Your task to perform on an android device: change notification settings in the gmail app Image 0: 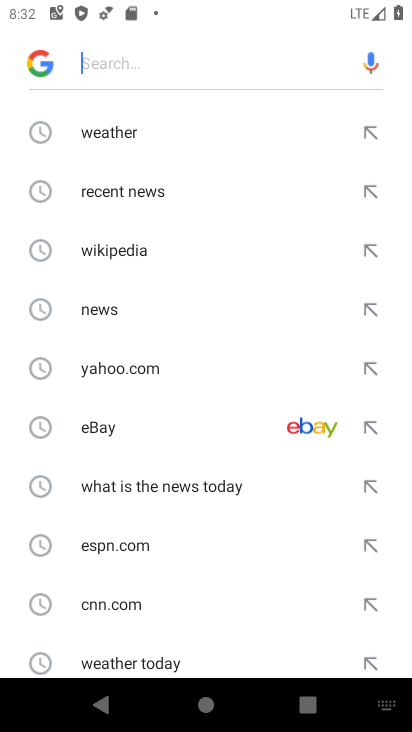
Step 0: press home button
Your task to perform on an android device: change notification settings in the gmail app Image 1: 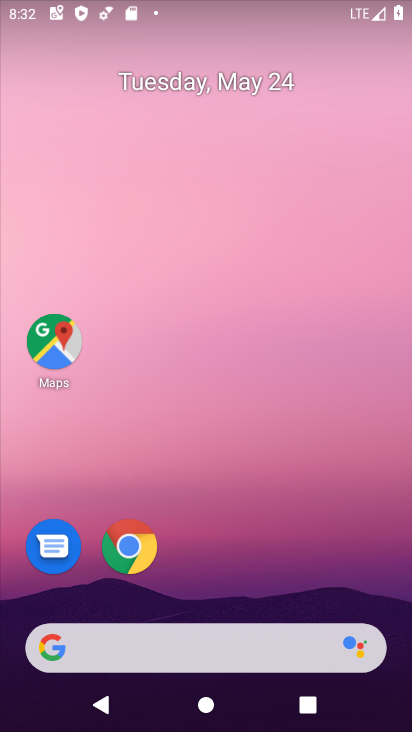
Step 1: drag from (288, 547) to (242, 33)
Your task to perform on an android device: change notification settings in the gmail app Image 2: 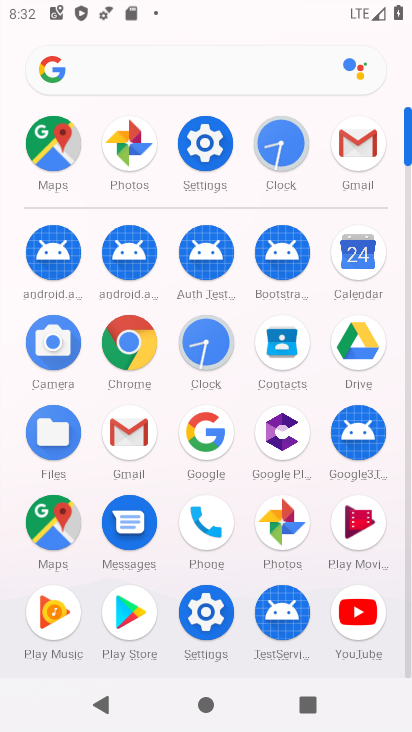
Step 2: click (346, 140)
Your task to perform on an android device: change notification settings in the gmail app Image 3: 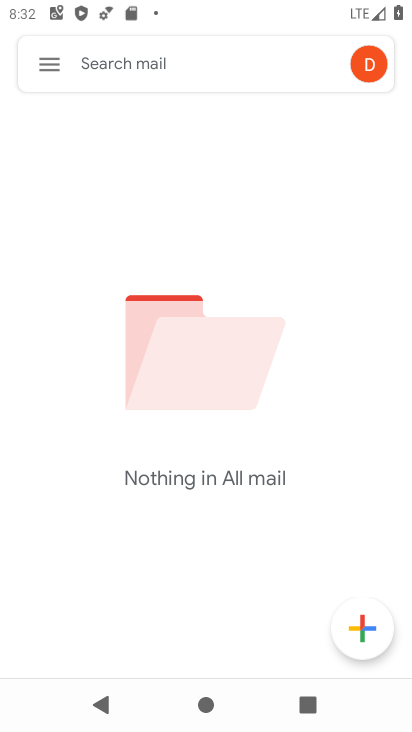
Step 3: click (43, 56)
Your task to perform on an android device: change notification settings in the gmail app Image 4: 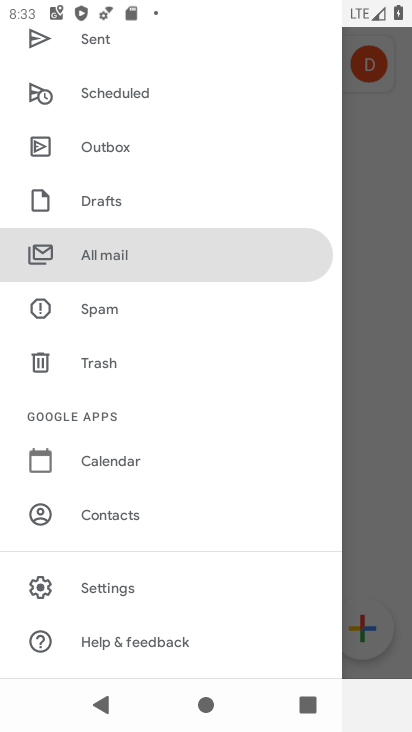
Step 4: click (154, 586)
Your task to perform on an android device: change notification settings in the gmail app Image 5: 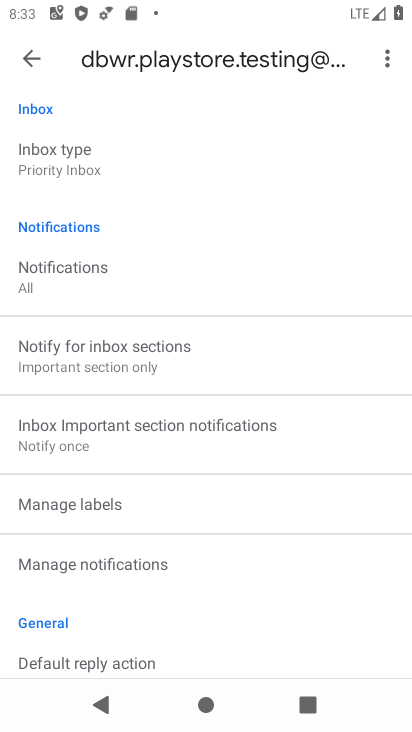
Step 5: click (185, 555)
Your task to perform on an android device: change notification settings in the gmail app Image 6: 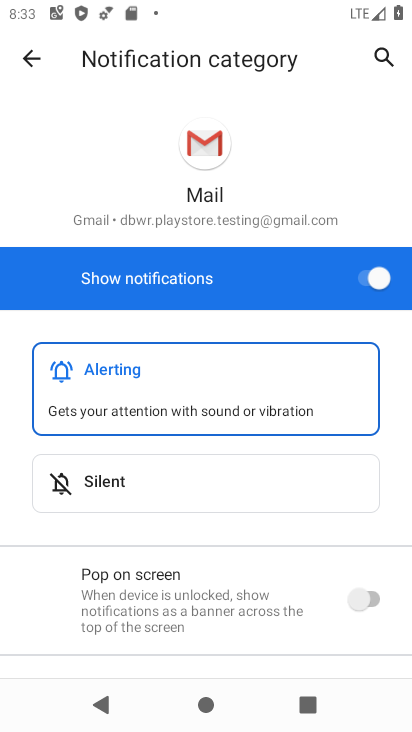
Step 6: click (366, 272)
Your task to perform on an android device: change notification settings in the gmail app Image 7: 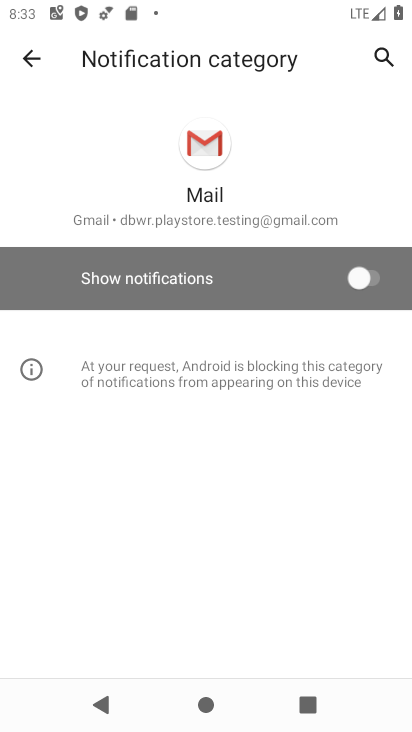
Step 7: task complete